Your task to perform on an android device: check storage Image 0: 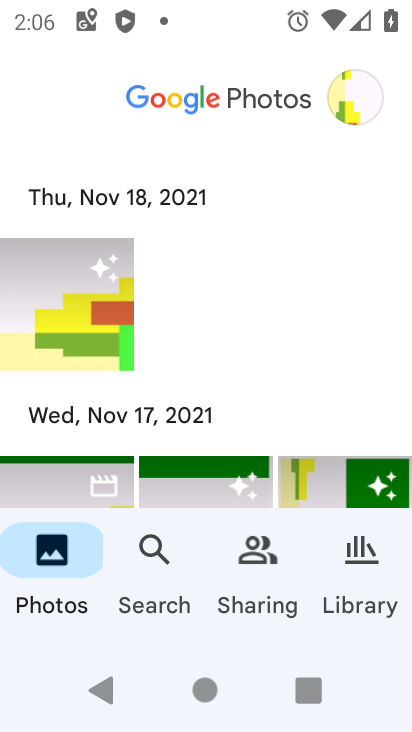
Step 0: press home button
Your task to perform on an android device: check storage Image 1: 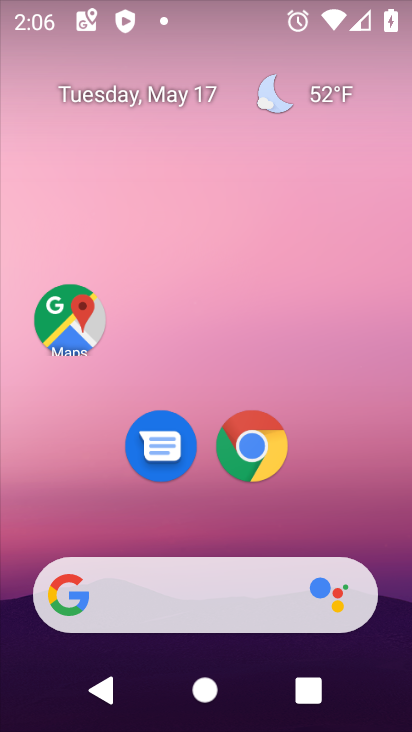
Step 1: drag from (164, 509) to (180, 235)
Your task to perform on an android device: check storage Image 2: 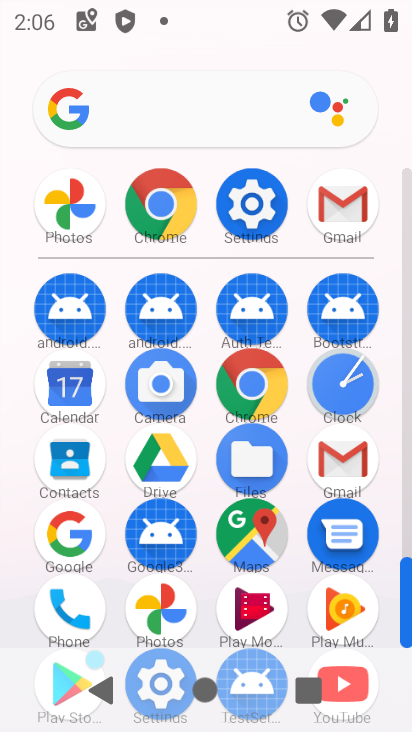
Step 2: click (250, 204)
Your task to perform on an android device: check storage Image 3: 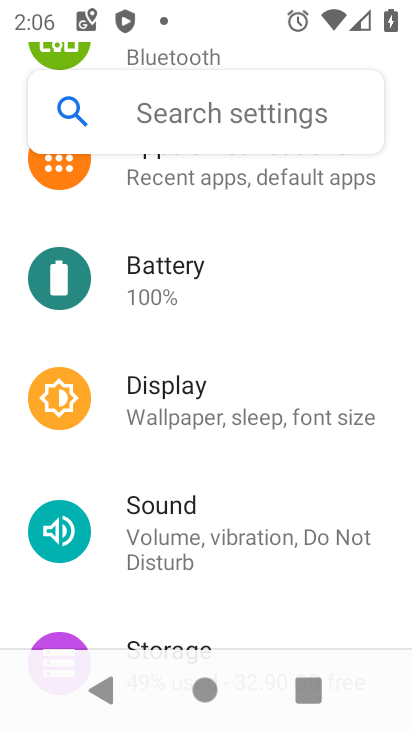
Step 3: drag from (191, 585) to (211, 294)
Your task to perform on an android device: check storage Image 4: 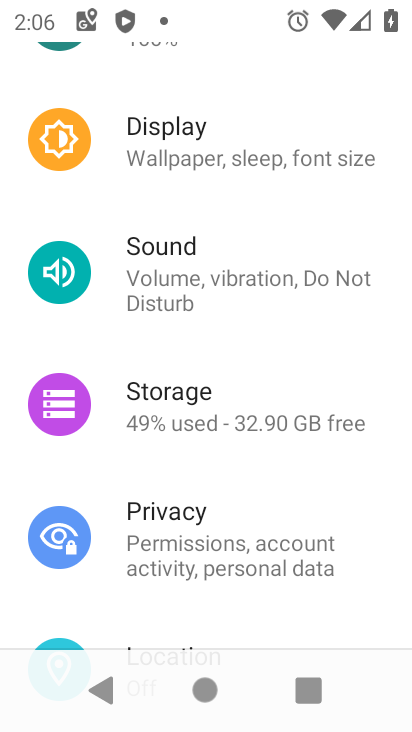
Step 4: click (197, 418)
Your task to perform on an android device: check storage Image 5: 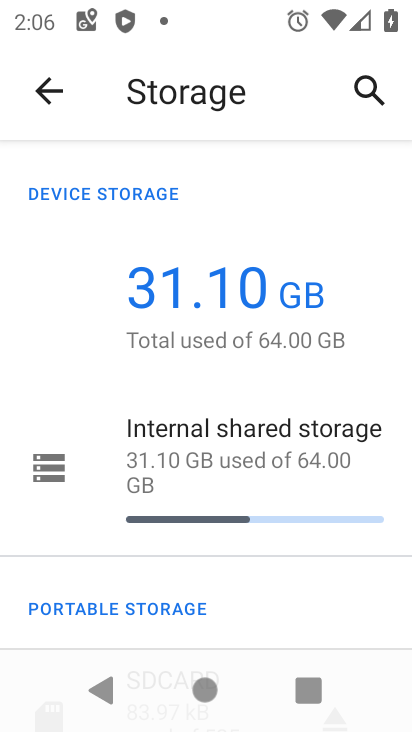
Step 5: task complete